Your task to perform on an android device: turn pop-ups on in chrome Image 0: 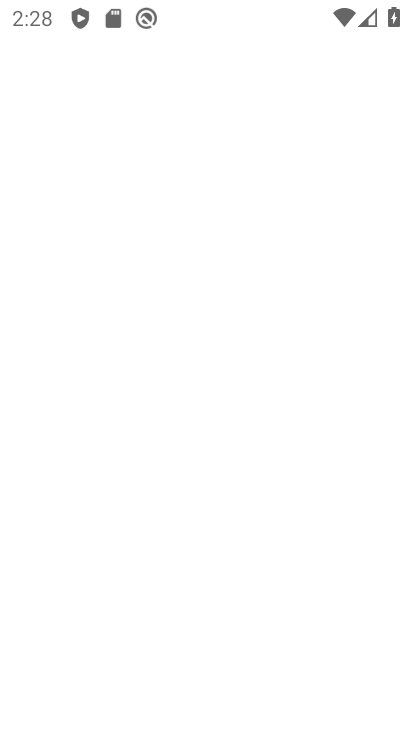
Step 0: press home button
Your task to perform on an android device: turn pop-ups on in chrome Image 1: 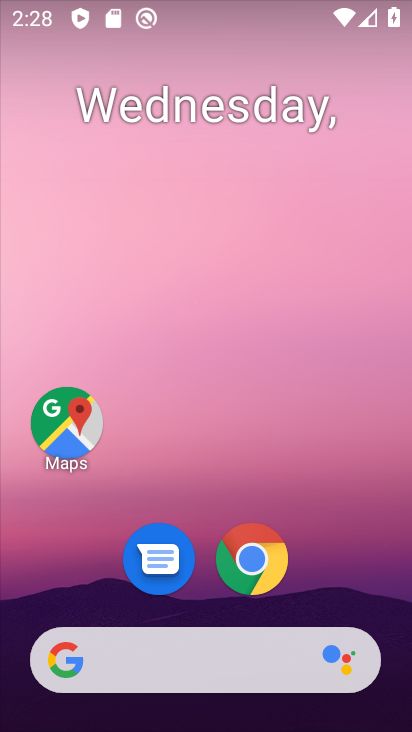
Step 1: drag from (375, 573) to (317, 2)
Your task to perform on an android device: turn pop-ups on in chrome Image 2: 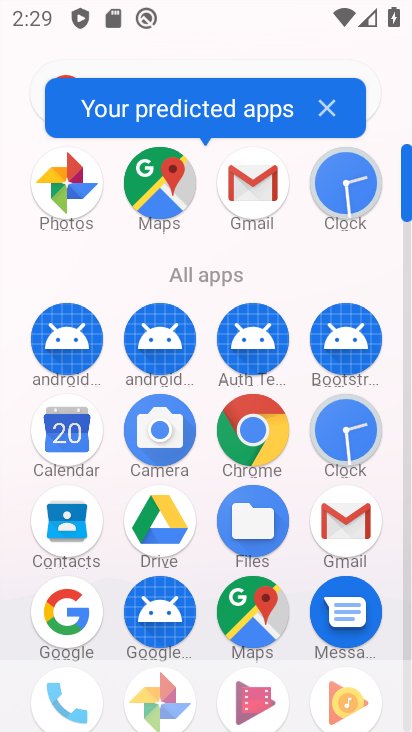
Step 2: click (251, 452)
Your task to perform on an android device: turn pop-ups on in chrome Image 3: 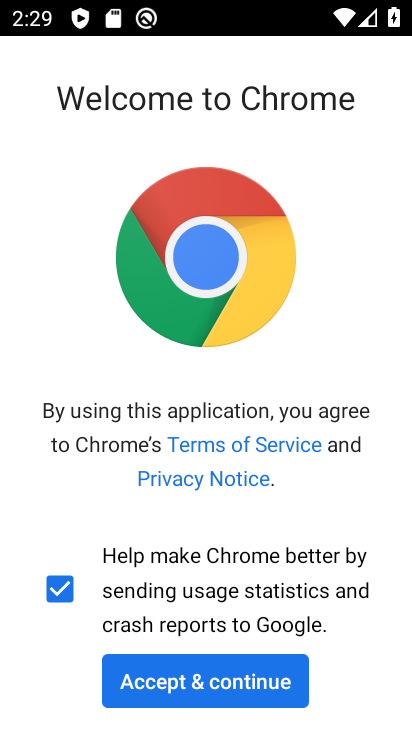
Step 3: click (265, 676)
Your task to perform on an android device: turn pop-ups on in chrome Image 4: 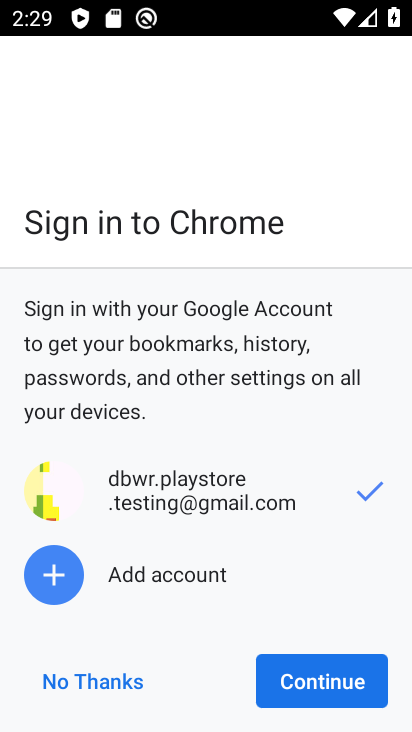
Step 4: click (308, 673)
Your task to perform on an android device: turn pop-ups on in chrome Image 5: 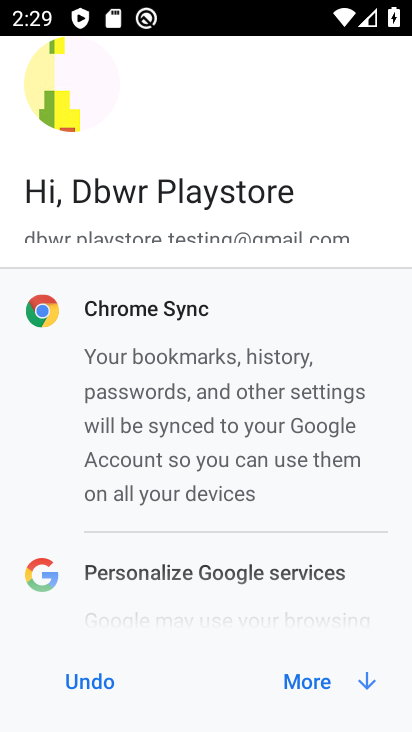
Step 5: click (308, 673)
Your task to perform on an android device: turn pop-ups on in chrome Image 6: 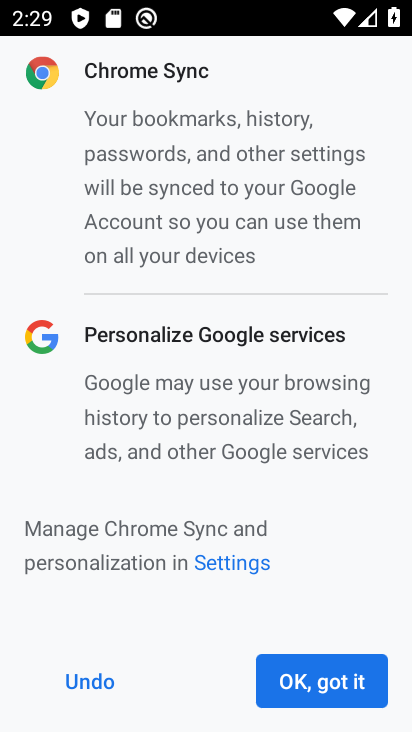
Step 6: click (308, 673)
Your task to perform on an android device: turn pop-ups on in chrome Image 7: 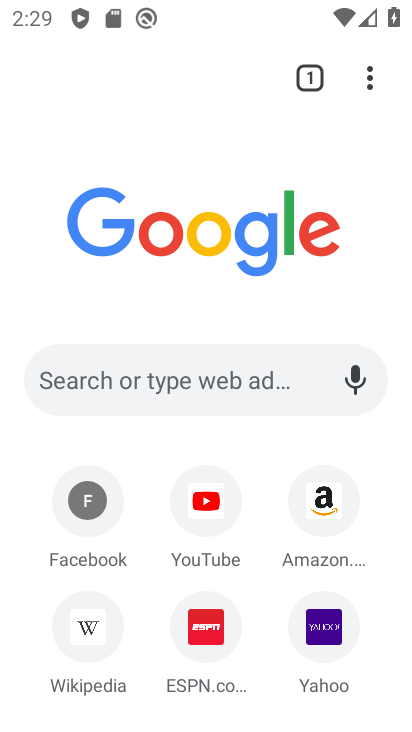
Step 7: drag from (379, 88) to (146, 624)
Your task to perform on an android device: turn pop-ups on in chrome Image 8: 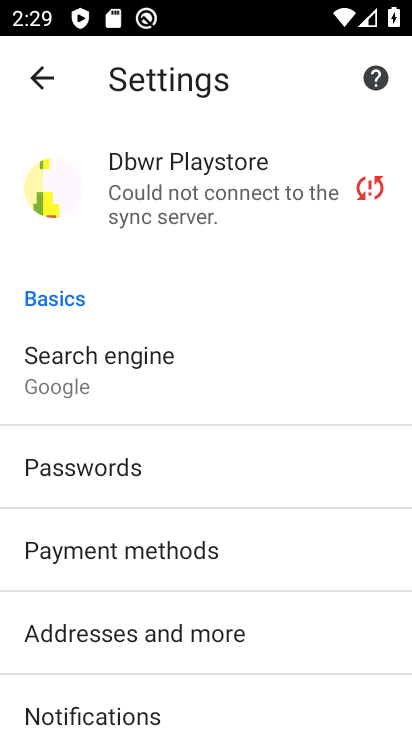
Step 8: drag from (300, 665) to (301, 305)
Your task to perform on an android device: turn pop-ups on in chrome Image 9: 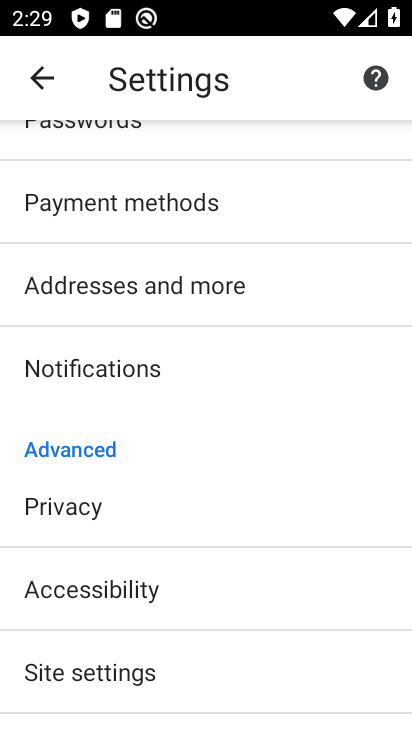
Step 9: drag from (289, 646) to (314, 357)
Your task to perform on an android device: turn pop-ups on in chrome Image 10: 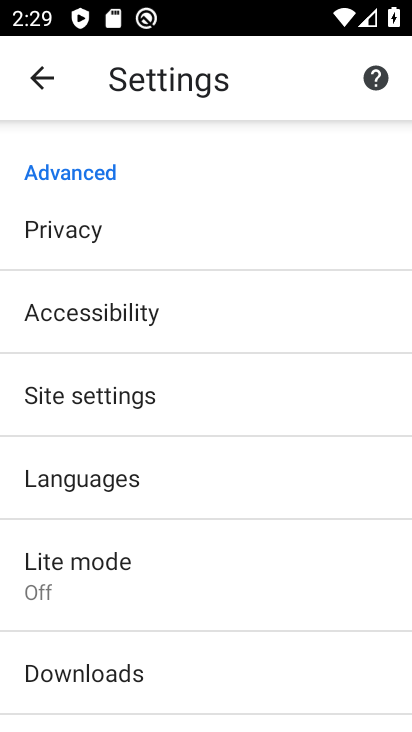
Step 10: click (110, 399)
Your task to perform on an android device: turn pop-ups on in chrome Image 11: 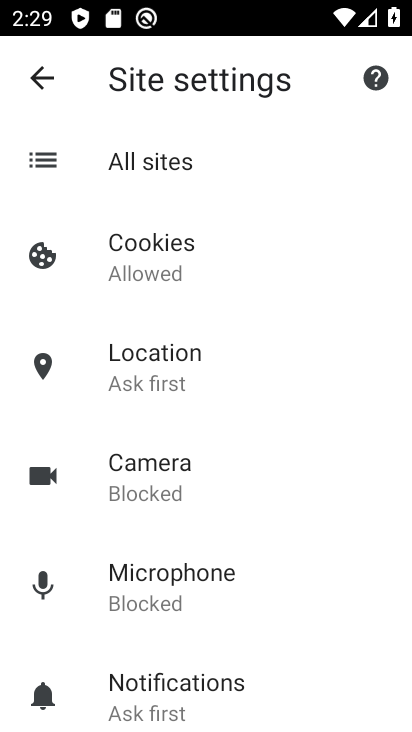
Step 11: drag from (291, 643) to (383, 280)
Your task to perform on an android device: turn pop-ups on in chrome Image 12: 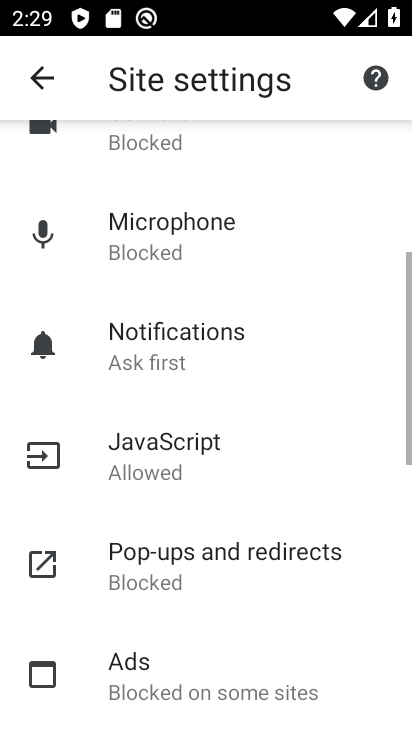
Step 12: click (228, 545)
Your task to perform on an android device: turn pop-ups on in chrome Image 13: 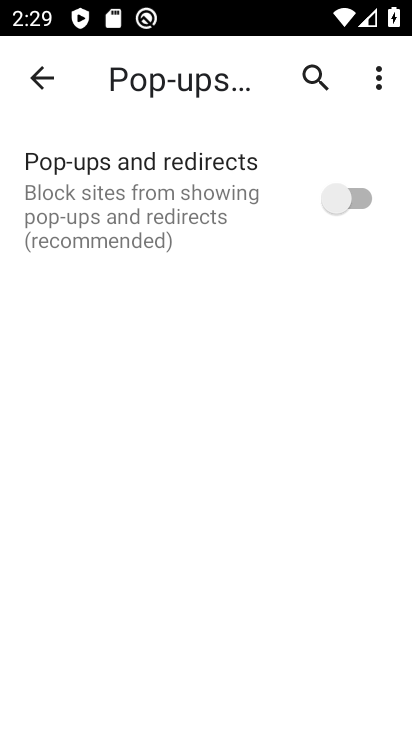
Step 13: click (367, 198)
Your task to perform on an android device: turn pop-ups on in chrome Image 14: 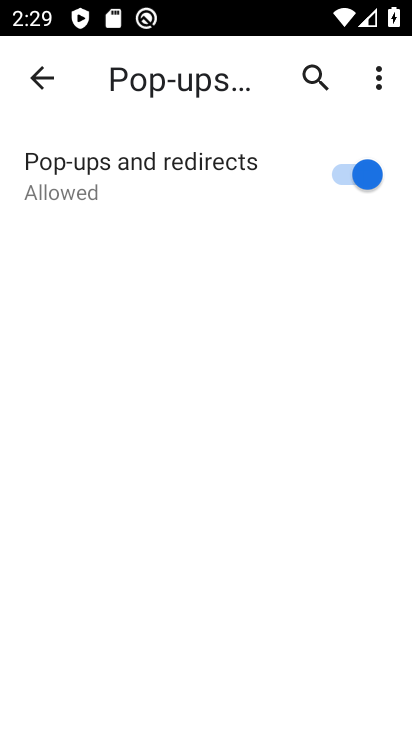
Step 14: task complete